Your task to perform on an android device: toggle translation in the chrome app Image 0: 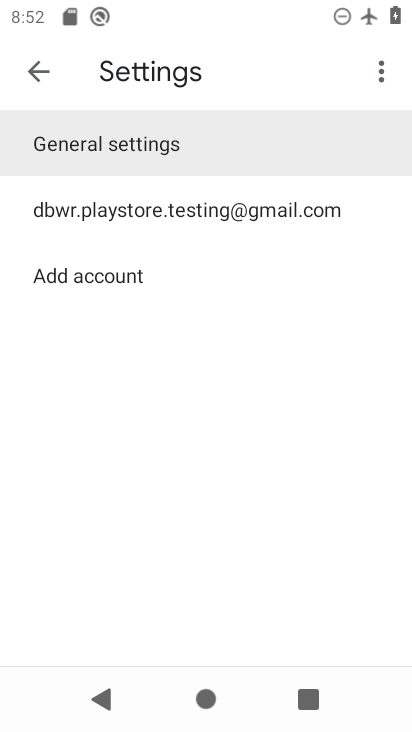
Step 0: press home button
Your task to perform on an android device: toggle translation in the chrome app Image 1: 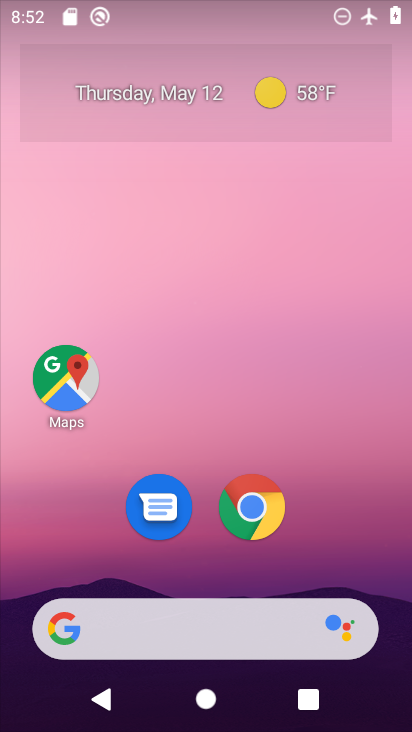
Step 1: click (262, 522)
Your task to perform on an android device: toggle translation in the chrome app Image 2: 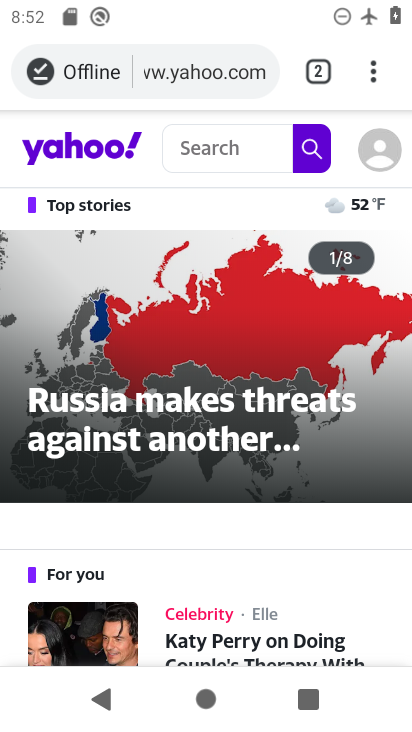
Step 2: drag from (373, 71) to (165, 511)
Your task to perform on an android device: toggle translation in the chrome app Image 3: 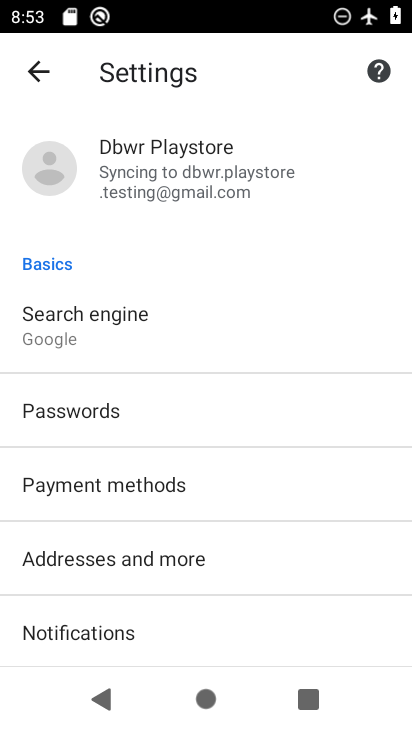
Step 3: drag from (181, 567) to (205, 328)
Your task to perform on an android device: toggle translation in the chrome app Image 4: 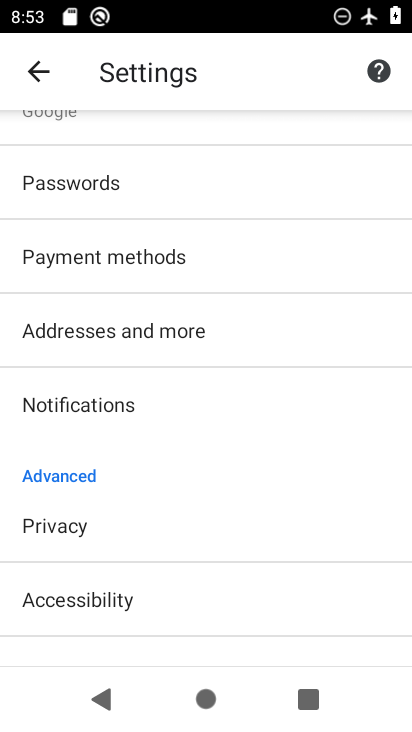
Step 4: drag from (198, 593) to (211, 348)
Your task to perform on an android device: toggle translation in the chrome app Image 5: 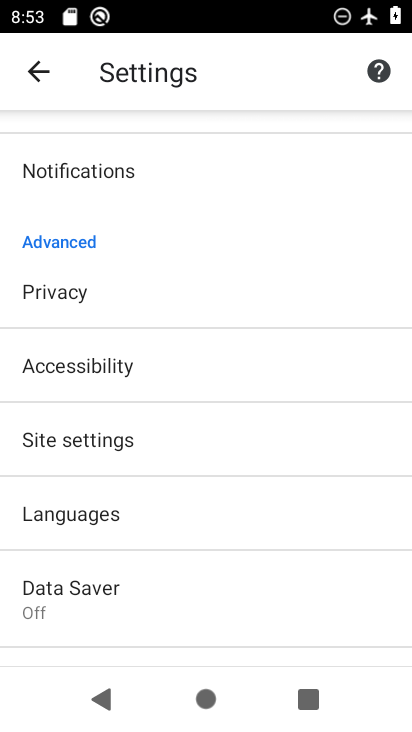
Step 5: drag from (215, 540) to (218, 380)
Your task to perform on an android device: toggle translation in the chrome app Image 6: 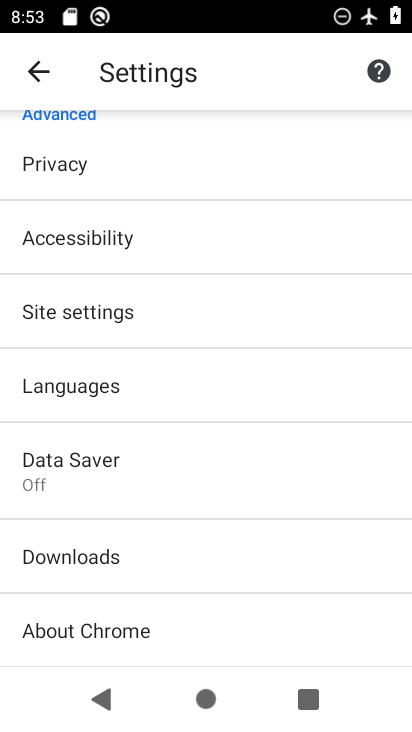
Step 6: drag from (137, 590) to (171, 327)
Your task to perform on an android device: toggle translation in the chrome app Image 7: 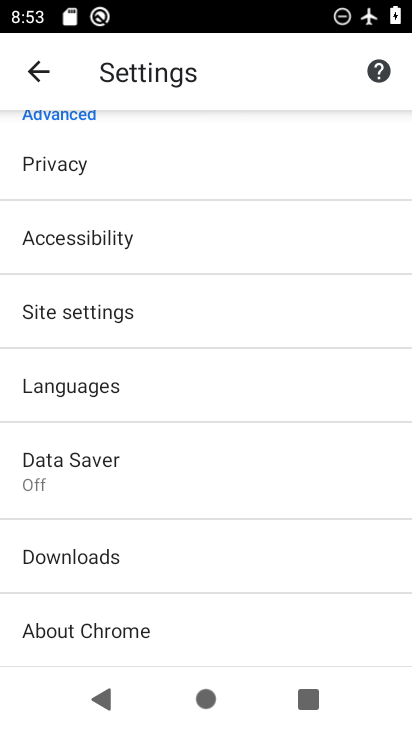
Step 7: drag from (195, 547) to (214, 358)
Your task to perform on an android device: toggle translation in the chrome app Image 8: 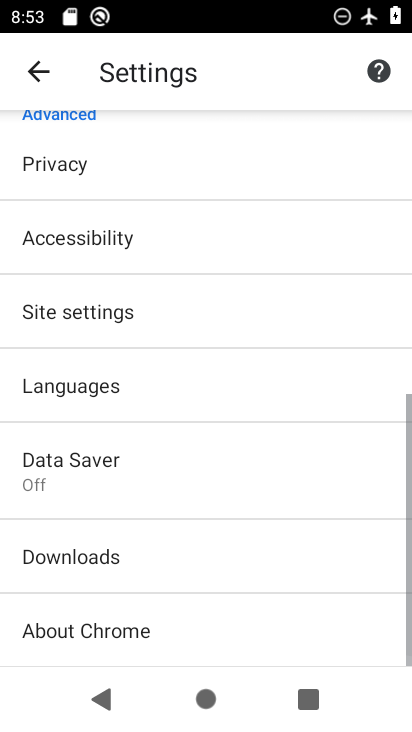
Step 8: click (160, 377)
Your task to perform on an android device: toggle translation in the chrome app Image 9: 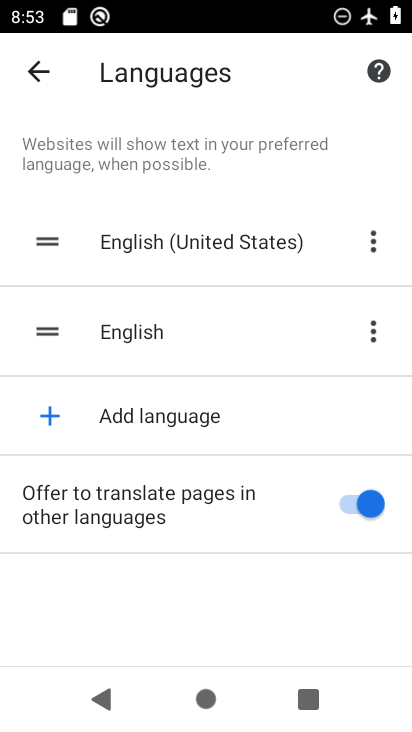
Step 9: click (347, 492)
Your task to perform on an android device: toggle translation in the chrome app Image 10: 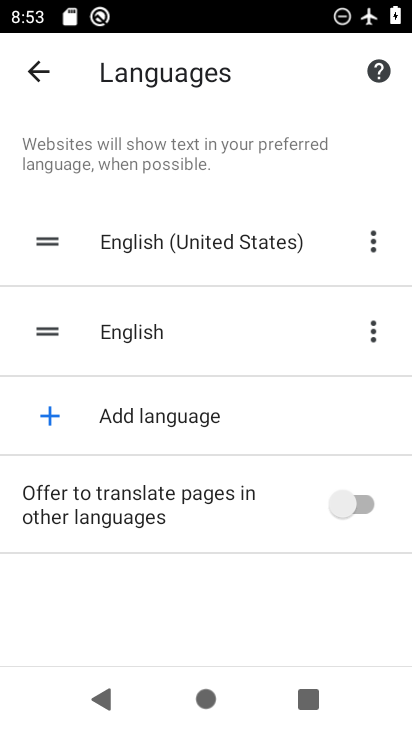
Step 10: task complete